Your task to perform on an android device: change notifications settings Image 0: 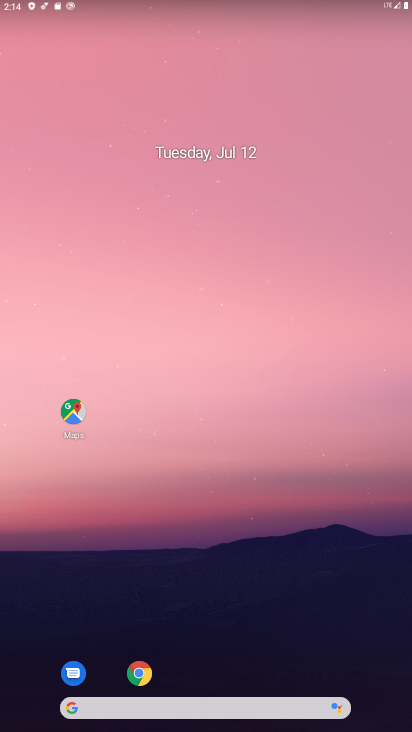
Step 0: drag from (217, 597) to (151, 85)
Your task to perform on an android device: change notifications settings Image 1: 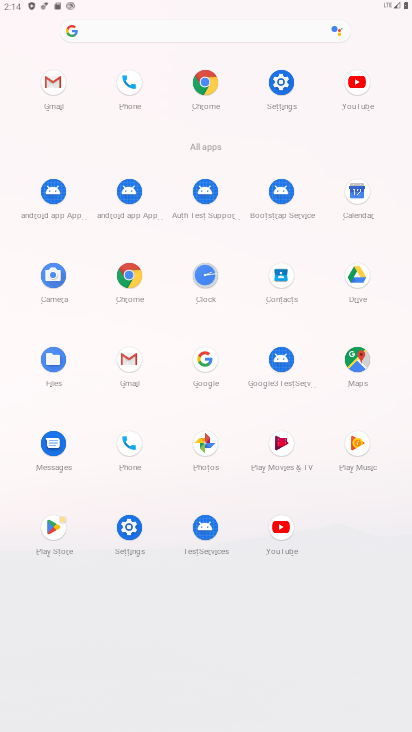
Step 1: click (281, 92)
Your task to perform on an android device: change notifications settings Image 2: 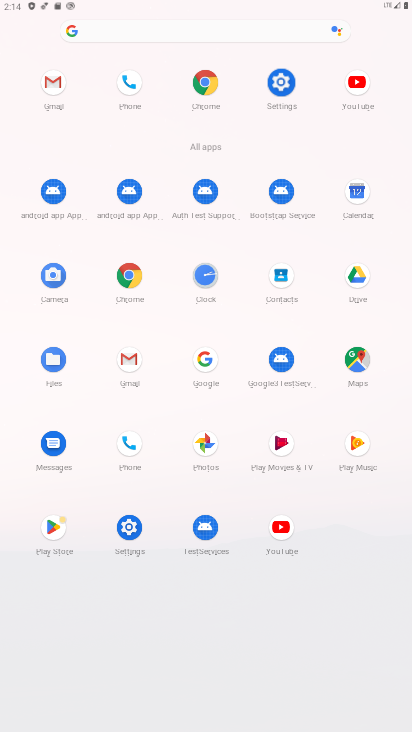
Step 2: click (282, 91)
Your task to perform on an android device: change notifications settings Image 3: 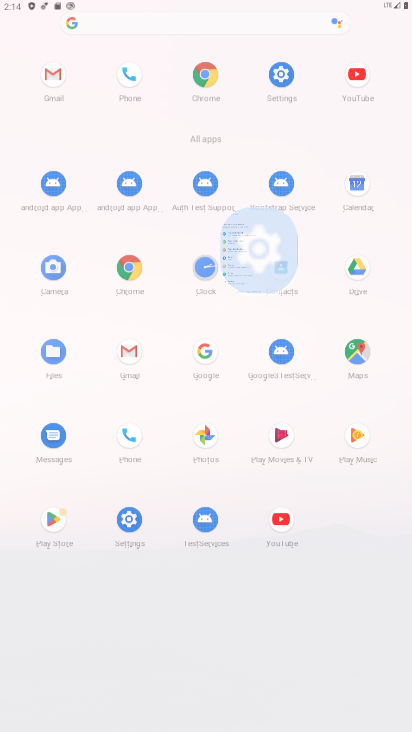
Step 3: click (283, 90)
Your task to perform on an android device: change notifications settings Image 4: 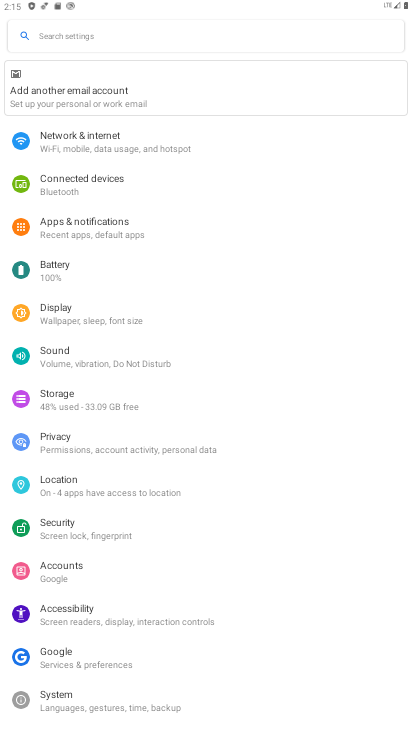
Step 4: click (77, 231)
Your task to perform on an android device: change notifications settings Image 5: 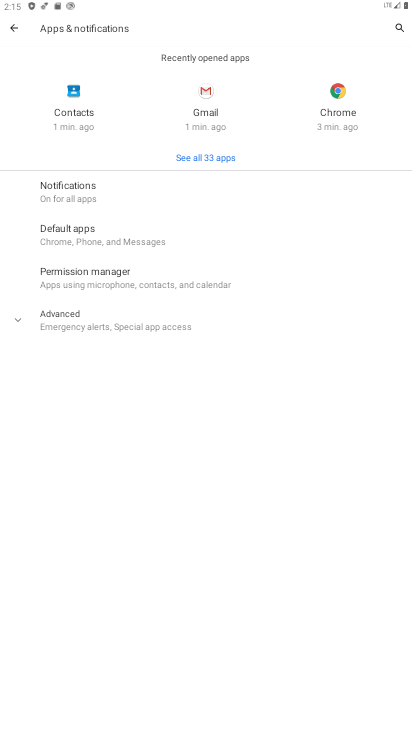
Step 5: click (62, 196)
Your task to perform on an android device: change notifications settings Image 6: 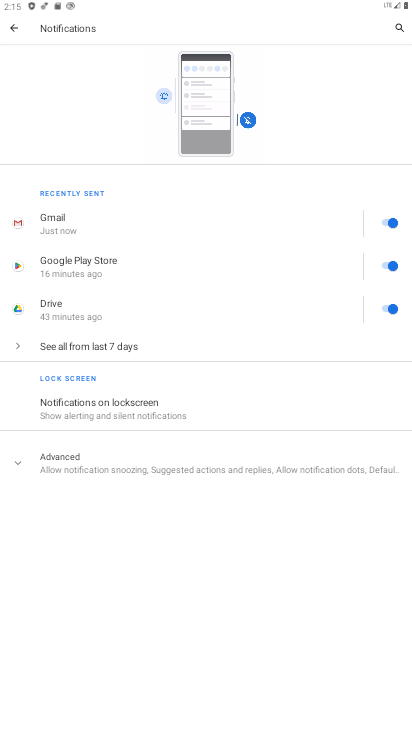
Step 6: click (84, 461)
Your task to perform on an android device: change notifications settings Image 7: 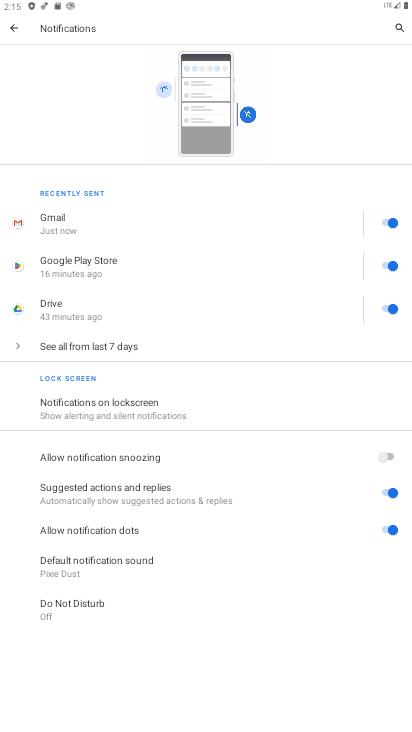
Step 7: click (386, 222)
Your task to perform on an android device: change notifications settings Image 8: 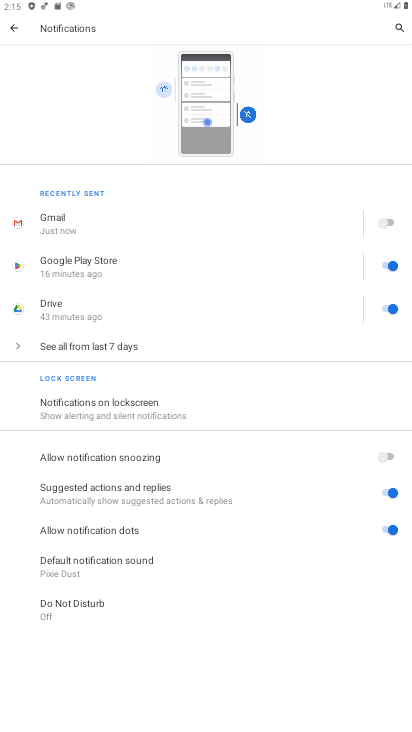
Step 8: click (390, 264)
Your task to perform on an android device: change notifications settings Image 9: 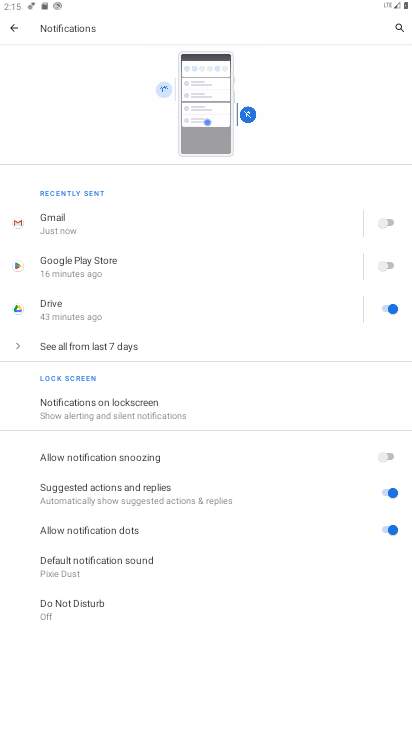
Step 9: click (391, 307)
Your task to perform on an android device: change notifications settings Image 10: 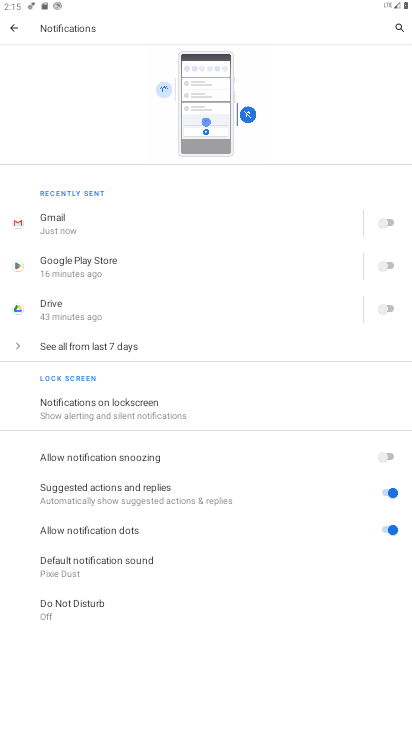
Step 10: click (400, 505)
Your task to perform on an android device: change notifications settings Image 11: 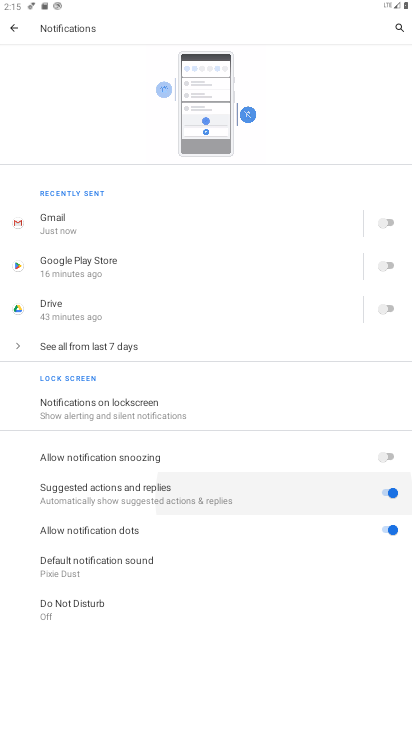
Step 11: click (390, 488)
Your task to perform on an android device: change notifications settings Image 12: 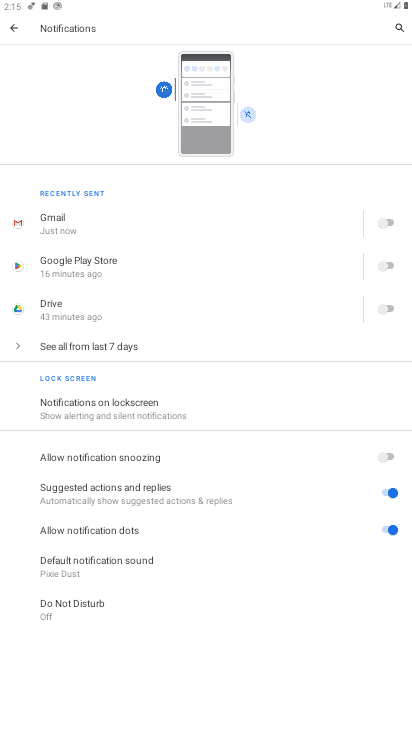
Step 12: click (382, 456)
Your task to perform on an android device: change notifications settings Image 13: 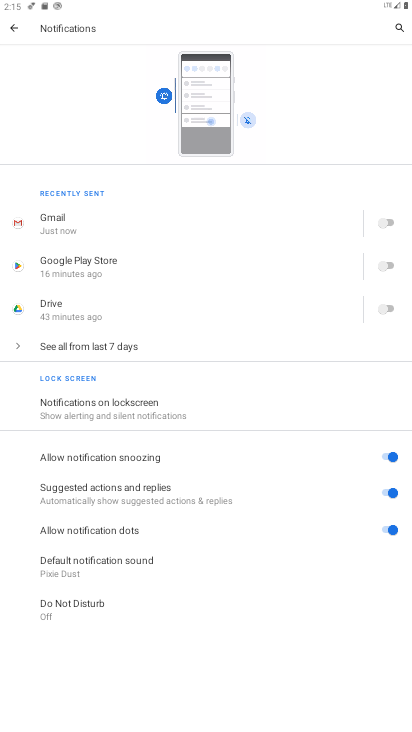
Step 13: click (396, 523)
Your task to perform on an android device: change notifications settings Image 14: 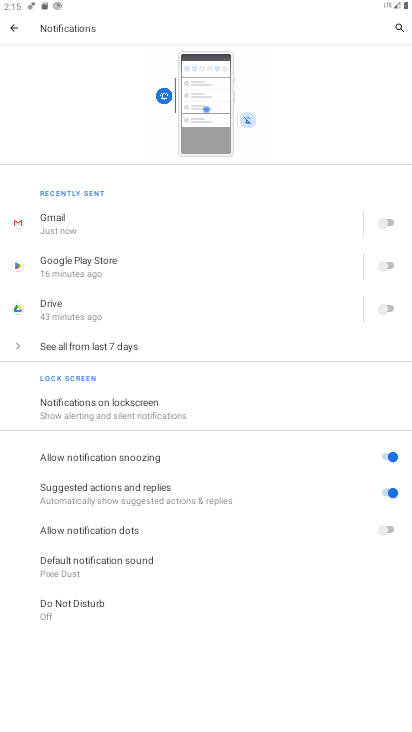
Step 14: click (391, 491)
Your task to perform on an android device: change notifications settings Image 15: 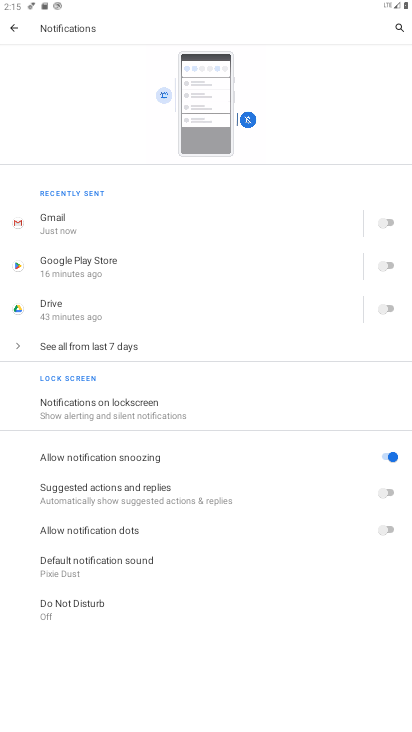
Step 15: task complete